Your task to perform on an android device: see sites visited before in the chrome app Image 0: 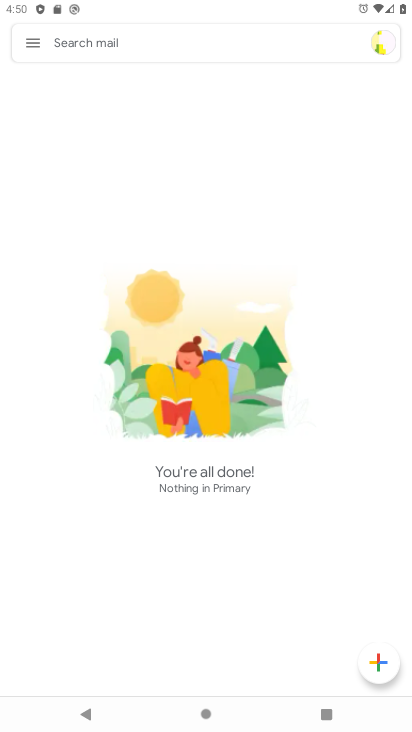
Step 0: click (204, 714)
Your task to perform on an android device: see sites visited before in the chrome app Image 1: 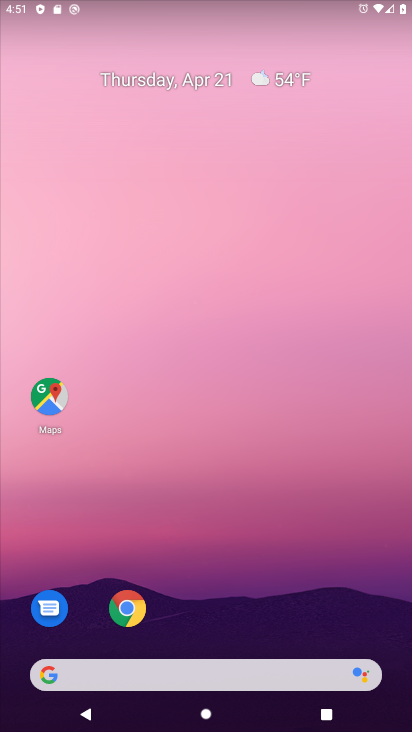
Step 1: click (118, 613)
Your task to perform on an android device: see sites visited before in the chrome app Image 2: 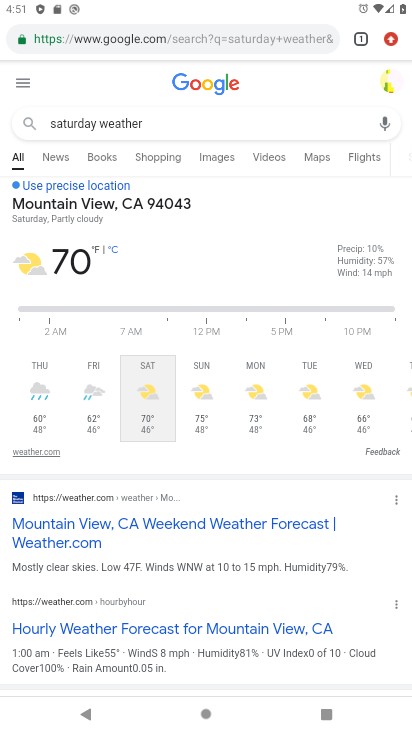
Step 2: click (21, 81)
Your task to perform on an android device: see sites visited before in the chrome app Image 3: 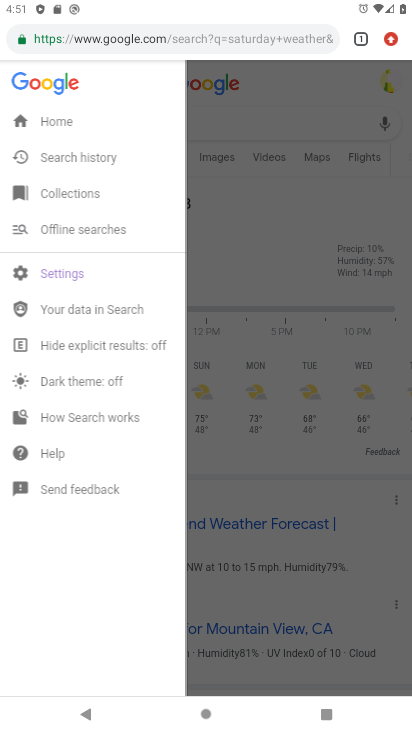
Step 3: click (74, 276)
Your task to perform on an android device: see sites visited before in the chrome app Image 4: 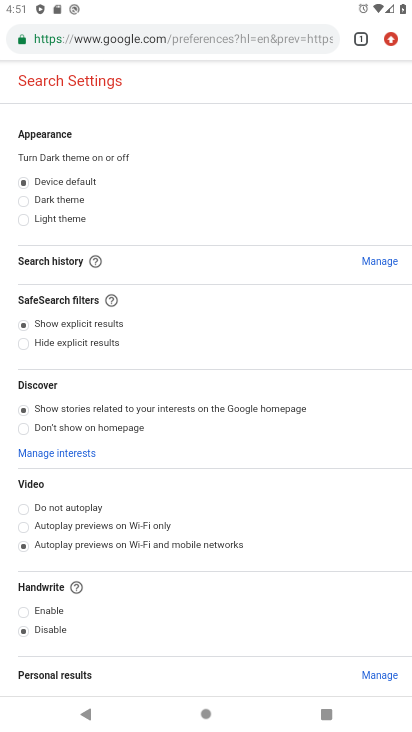
Step 4: click (367, 159)
Your task to perform on an android device: see sites visited before in the chrome app Image 5: 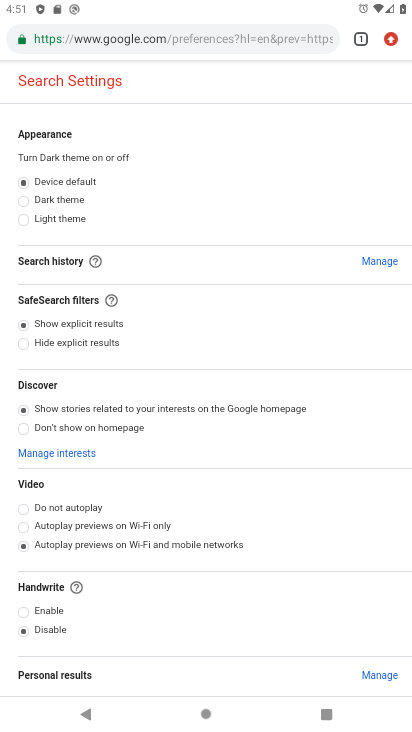
Step 5: task complete